Your task to perform on an android device: Open the phone app and click the voicemail tab. Image 0: 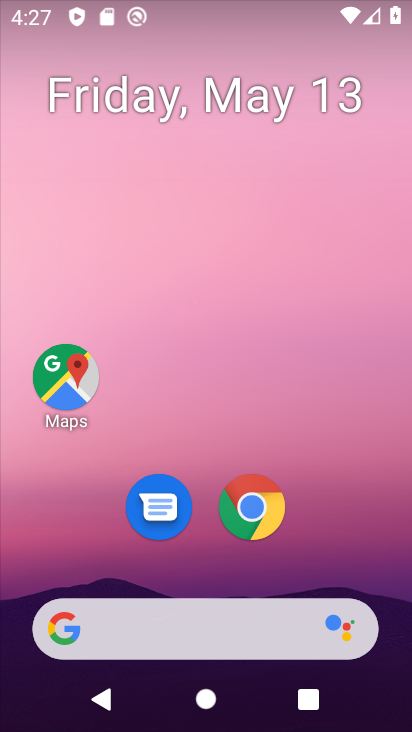
Step 0: drag from (322, 399) to (253, 81)
Your task to perform on an android device: Open the phone app and click the voicemail tab. Image 1: 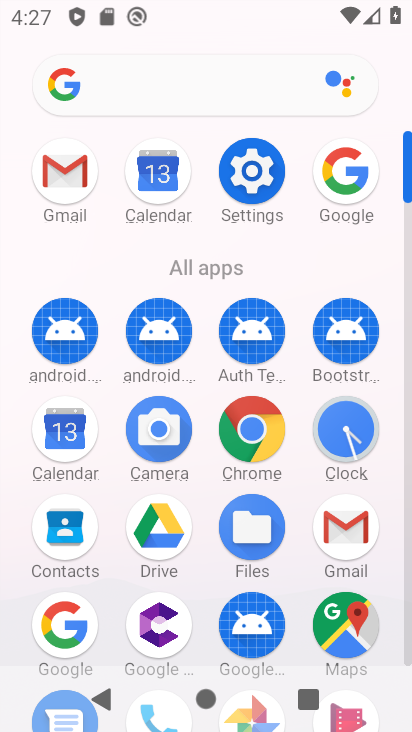
Step 1: drag from (194, 589) to (229, 239)
Your task to perform on an android device: Open the phone app and click the voicemail tab. Image 2: 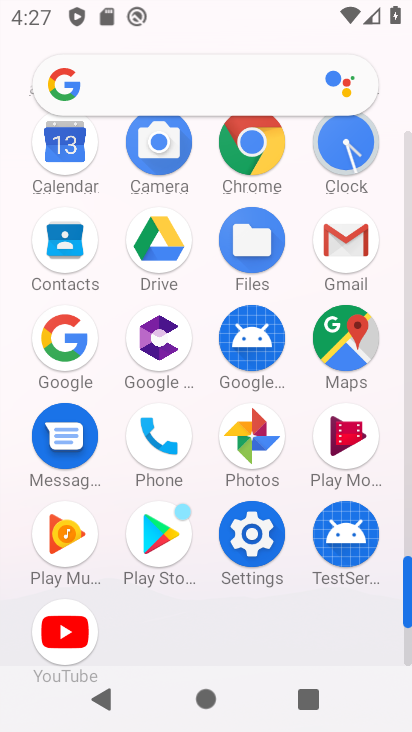
Step 2: click (167, 424)
Your task to perform on an android device: Open the phone app and click the voicemail tab. Image 3: 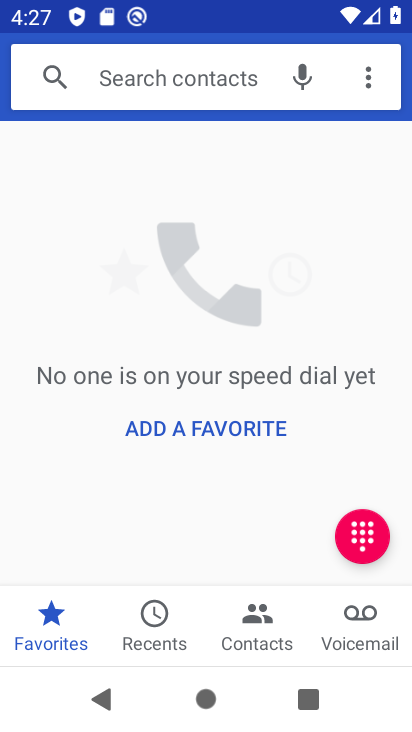
Step 3: click (366, 625)
Your task to perform on an android device: Open the phone app and click the voicemail tab. Image 4: 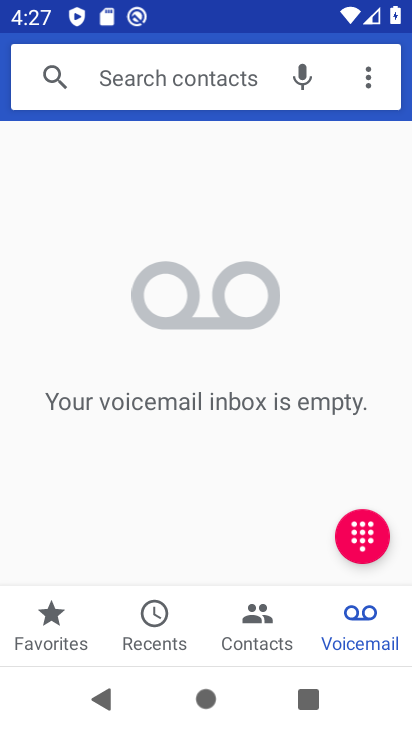
Step 4: task complete